Your task to perform on an android device: Go to calendar. Show me events next week Image 0: 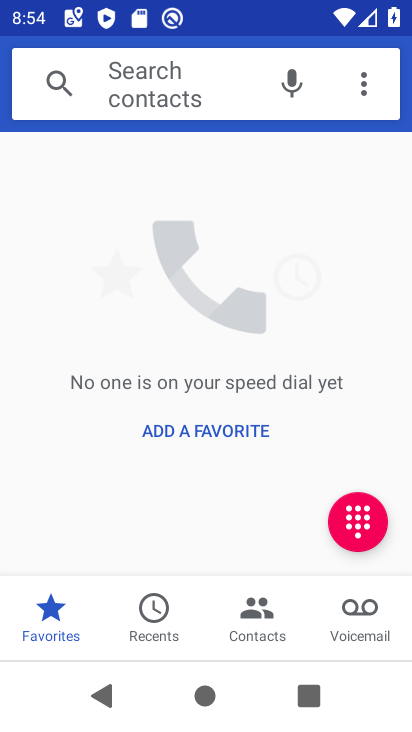
Step 0: click (262, 503)
Your task to perform on an android device: Go to calendar. Show me events next week Image 1: 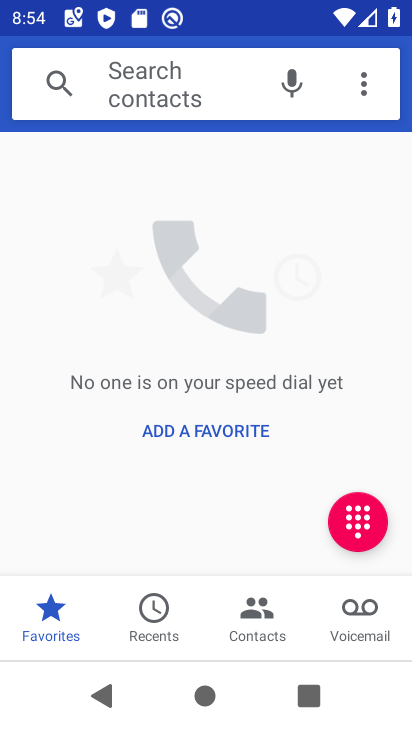
Step 1: click (262, 503)
Your task to perform on an android device: Go to calendar. Show me events next week Image 2: 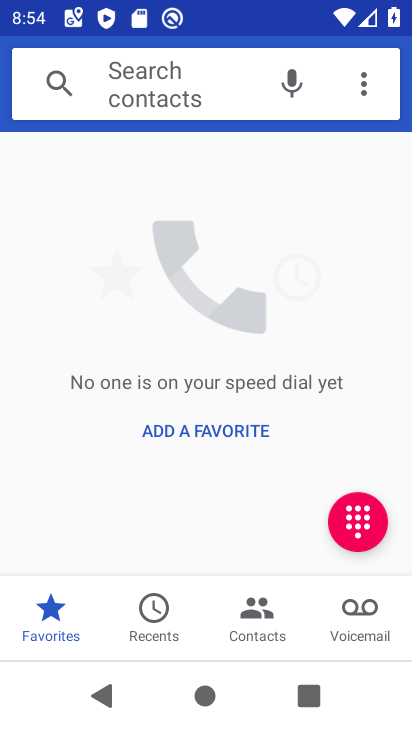
Step 2: press home button
Your task to perform on an android device: Go to calendar. Show me events next week Image 3: 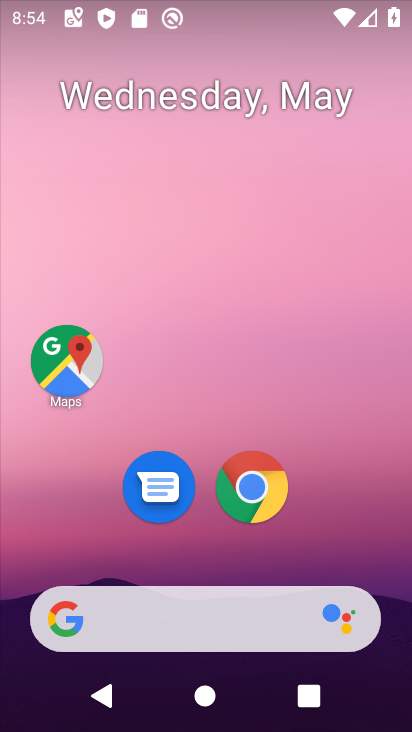
Step 3: drag from (343, 524) to (196, 99)
Your task to perform on an android device: Go to calendar. Show me events next week Image 4: 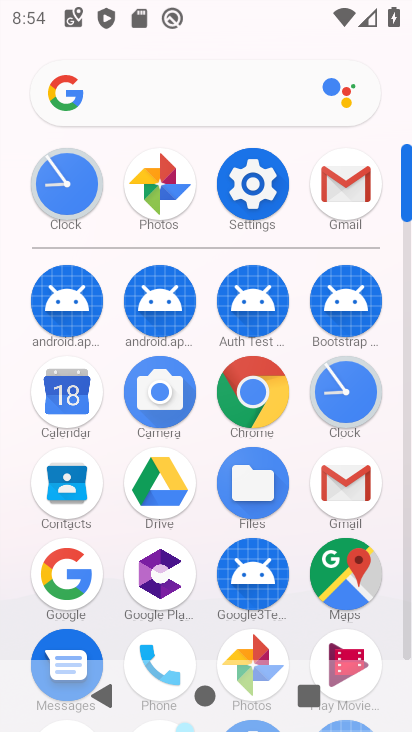
Step 4: click (66, 391)
Your task to perform on an android device: Go to calendar. Show me events next week Image 5: 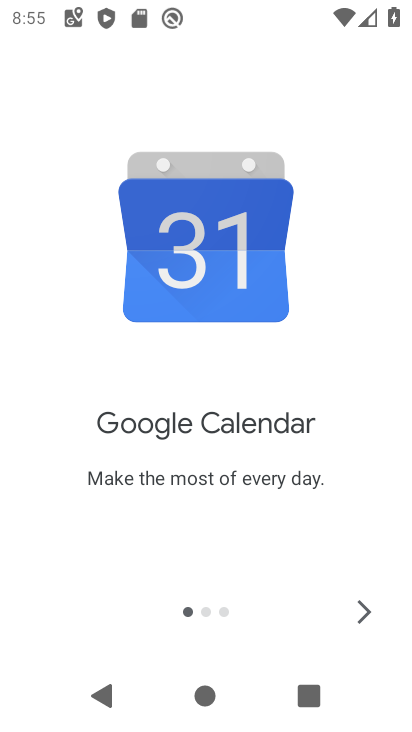
Step 5: click (362, 612)
Your task to perform on an android device: Go to calendar. Show me events next week Image 6: 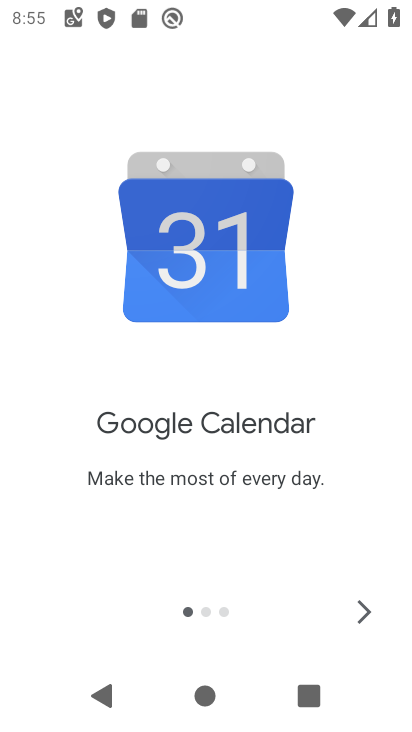
Step 6: click (362, 612)
Your task to perform on an android device: Go to calendar. Show me events next week Image 7: 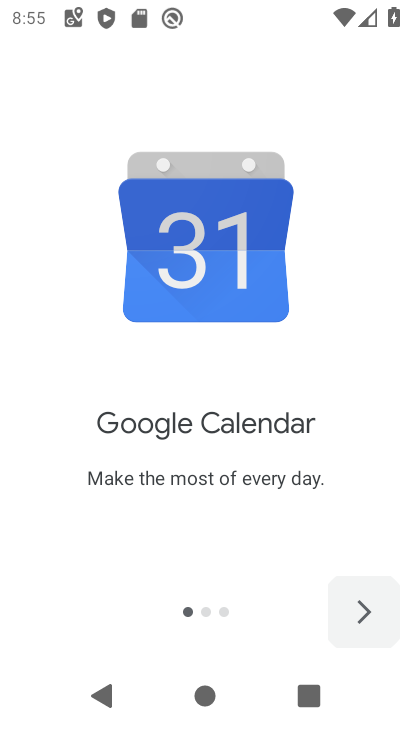
Step 7: click (362, 612)
Your task to perform on an android device: Go to calendar. Show me events next week Image 8: 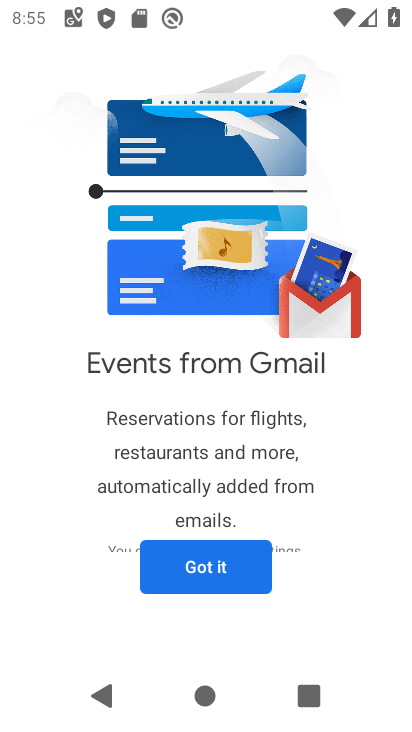
Step 8: click (185, 564)
Your task to perform on an android device: Go to calendar. Show me events next week Image 9: 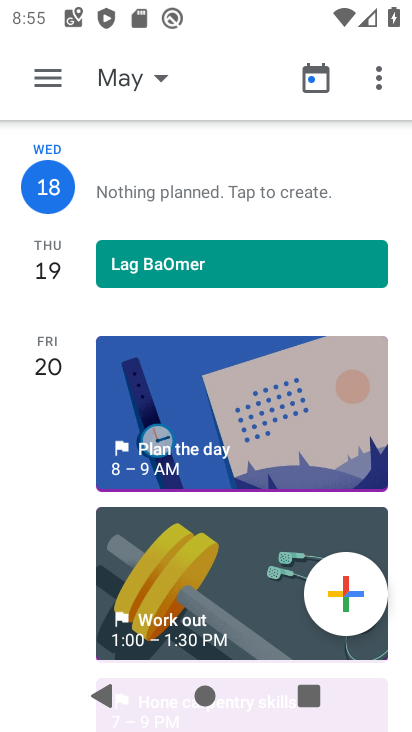
Step 9: click (44, 73)
Your task to perform on an android device: Go to calendar. Show me events next week Image 10: 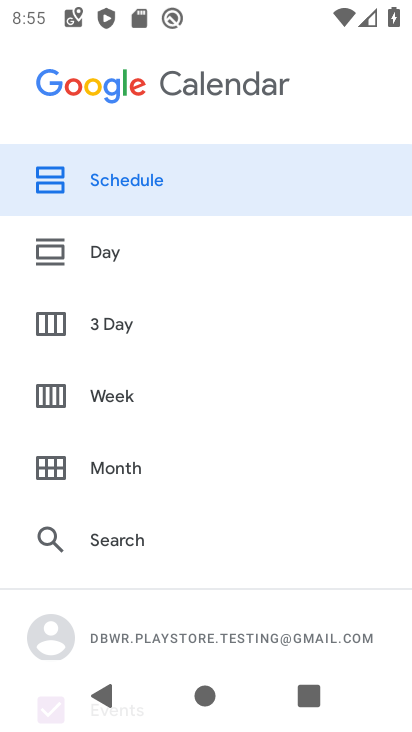
Step 10: click (114, 390)
Your task to perform on an android device: Go to calendar. Show me events next week Image 11: 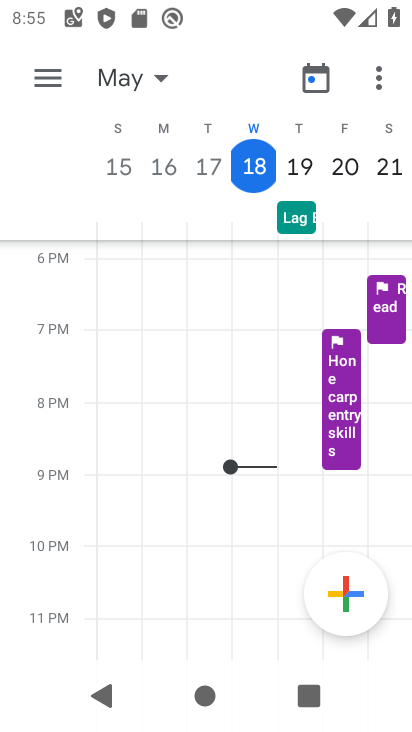
Step 11: click (161, 74)
Your task to perform on an android device: Go to calendar. Show me events next week Image 12: 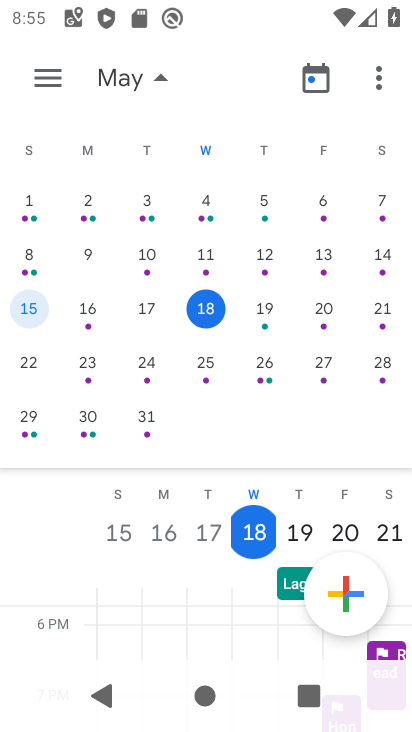
Step 12: click (203, 359)
Your task to perform on an android device: Go to calendar. Show me events next week Image 13: 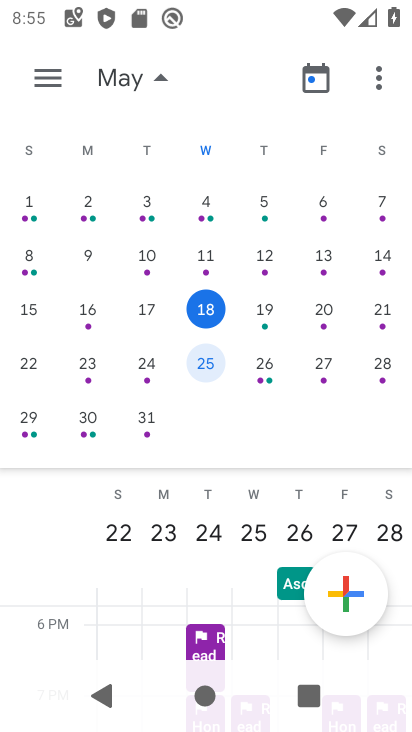
Step 13: task complete